Your task to perform on an android device: Open CNN.com Image 0: 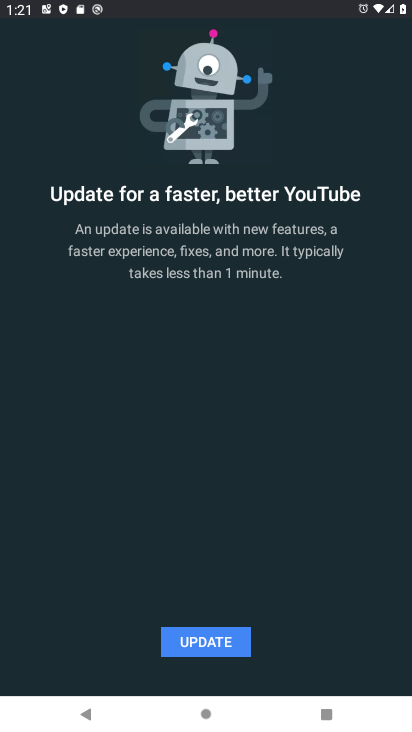
Step 0: press home button
Your task to perform on an android device: Open CNN.com Image 1: 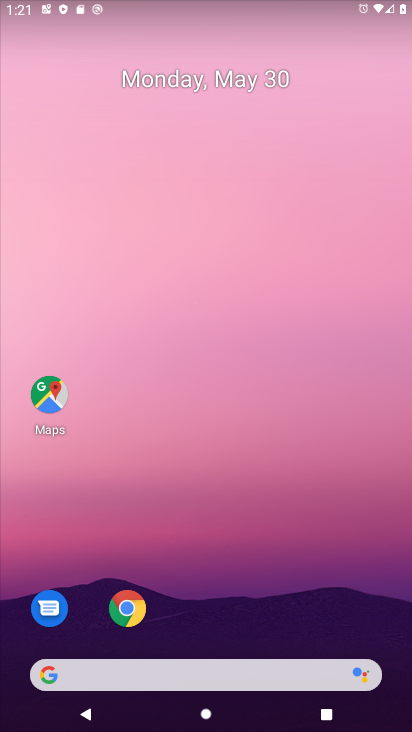
Step 1: click (131, 612)
Your task to perform on an android device: Open CNN.com Image 2: 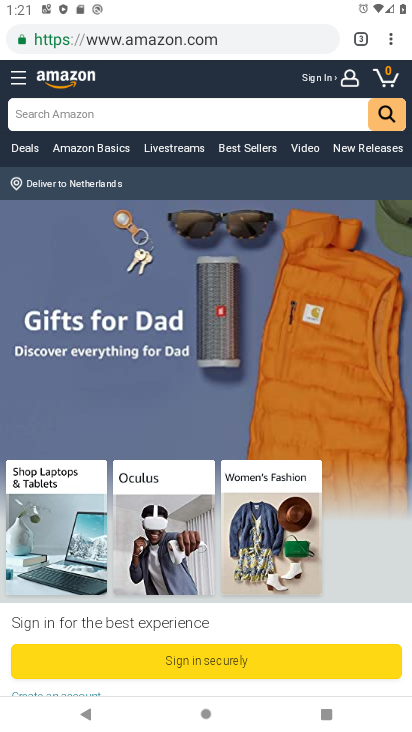
Step 2: click (165, 33)
Your task to perform on an android device: Open CNN.com Image 3: 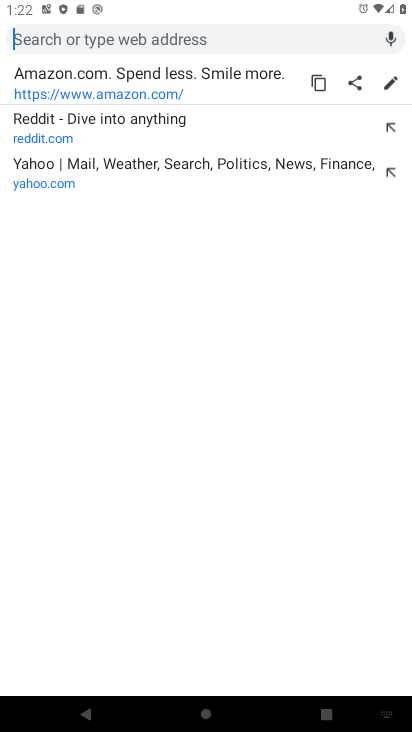
Step 3: type "cnn.com"
Your task to perform on an android device: Open CNN.com Image 4: 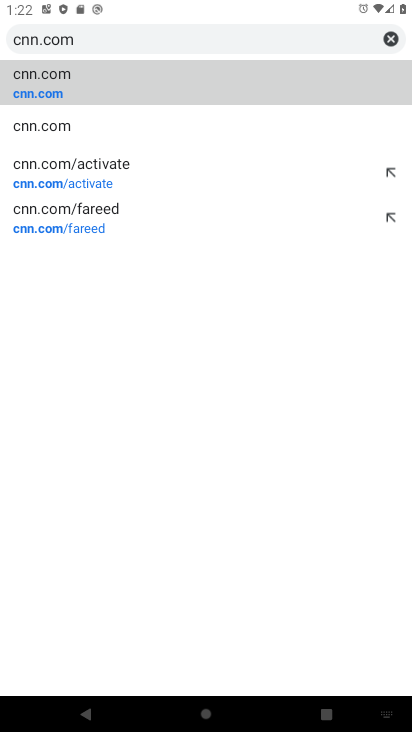
Step 4: click (128, 79)
Your task to perform on an android device: Open CNN.com Image 5: 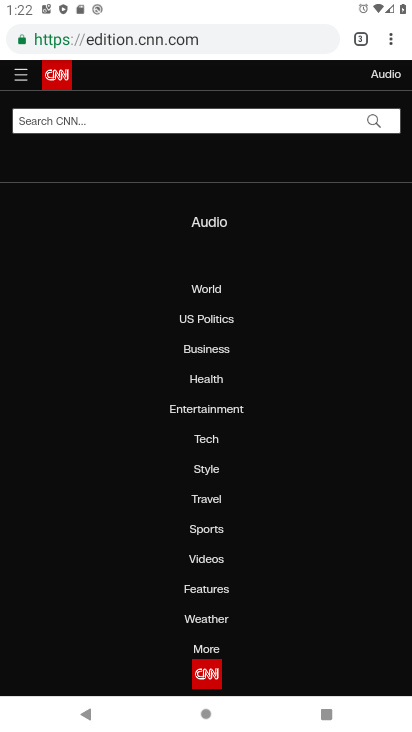
Step 5: task complete